Your task to perform on an android device: turn smart compose on in the gmail app Image 0: 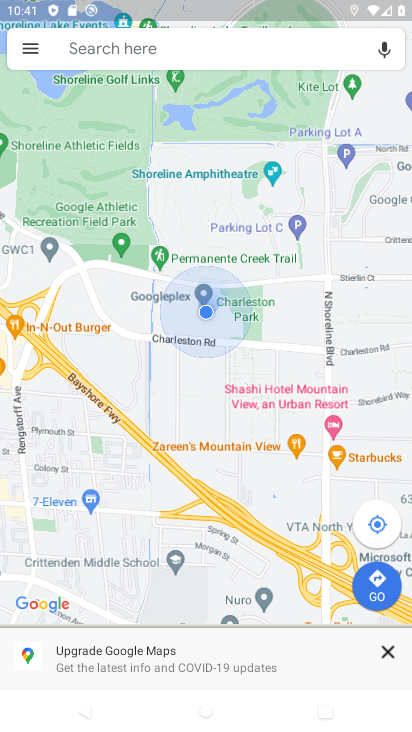
Step 0: press home button
Your task to perform on an android device: turn smart compose on in the gmail app Image 1: 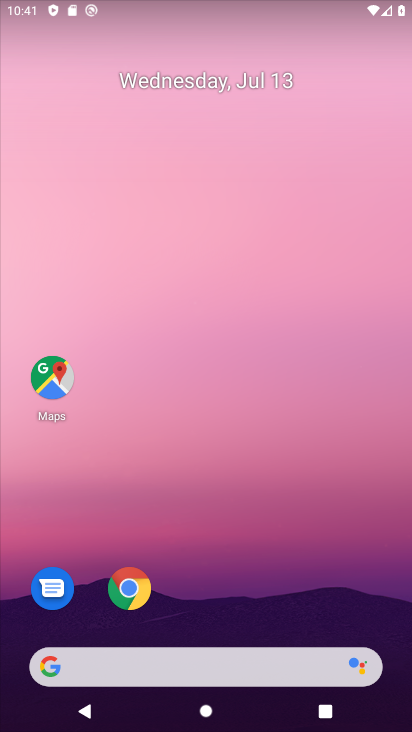
Step 1: drag from (324, 590) to (286, 89)
Your task to perform on an android device: turn smart compose on in the gmail app Image 2: 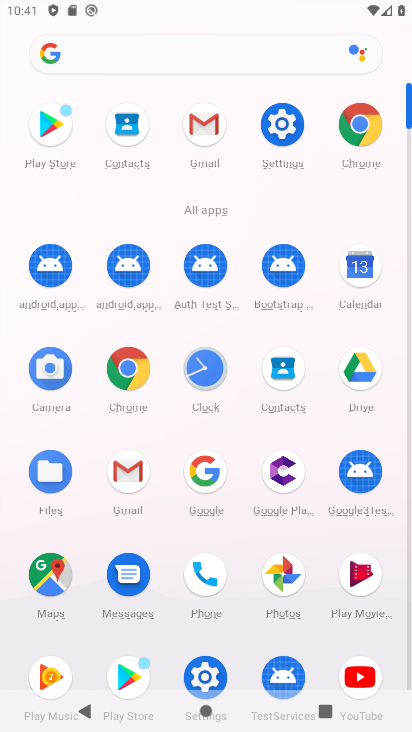
Step 2: click (199, 120)
Your task to perform on an android device: turn smart compose on in the gmail app Image 3: 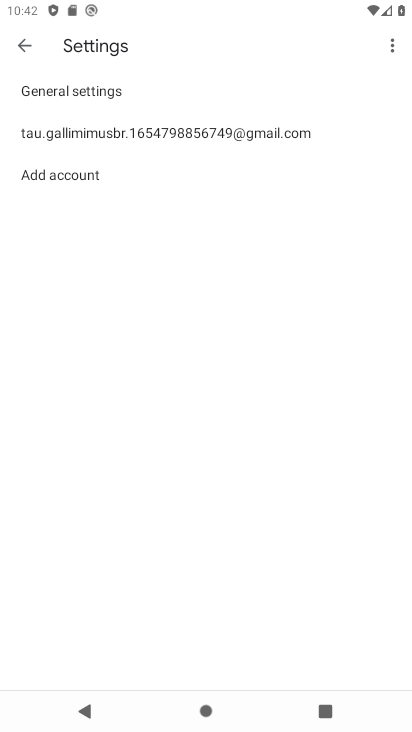
Step 3: click (204, 131)
Your task to perform on an android device: turn smart compose on in the gmail app Image 4: 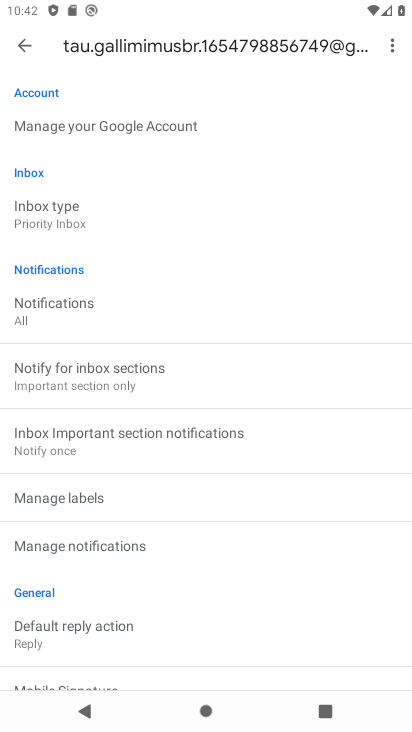
Step 4: task complete